Your task to perform on an android device: Check the weather Image 0: 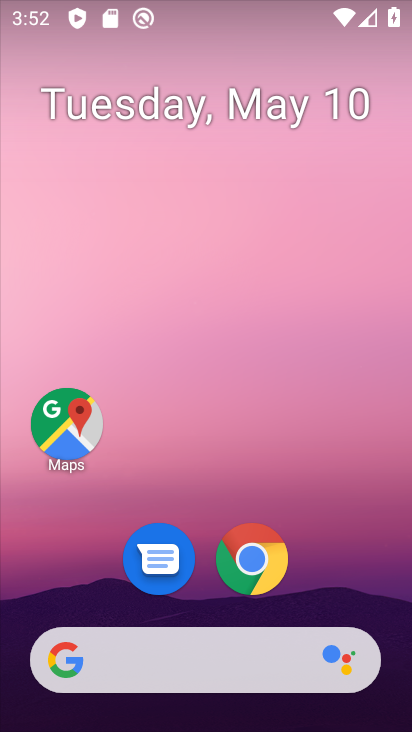
Step 0: drag from (72, 613) to (191, 44)
Your task to perform on an android device: Check the weather Image 1: 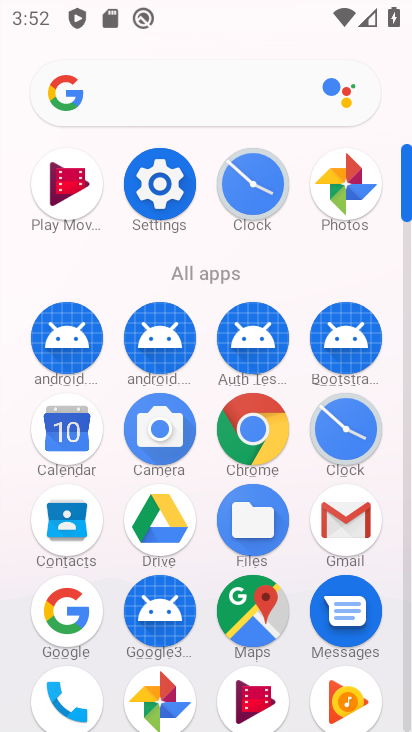
Step 1: click (61, 623)
Your task to perform on an android device: Check the weather Image 2: 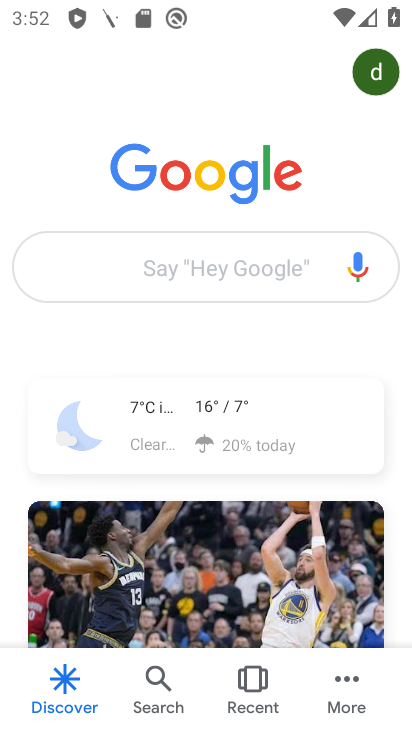
Step 2: click (214, 434)
Your task to perform on an android device: Check the weather Image 3: 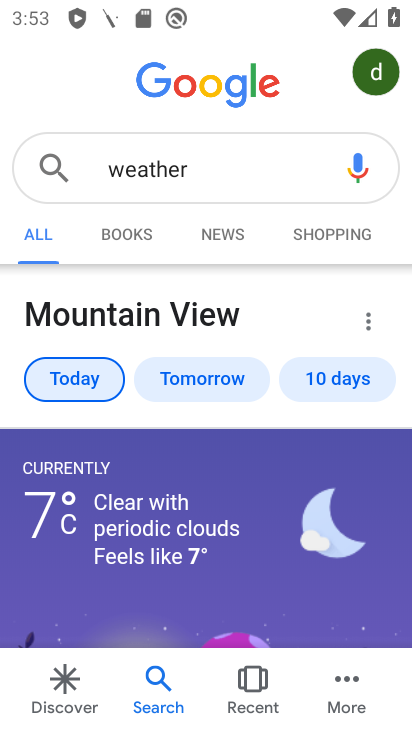
Step 3: task complete